Your task to perform on an android device: Check the settings for the Netflix app Image 0: 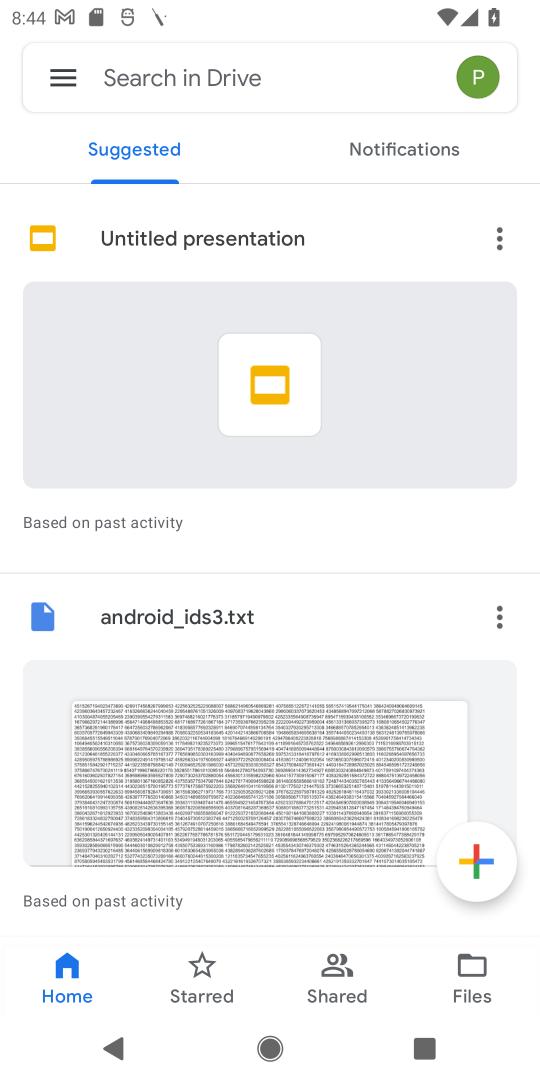
Step 0: press home button
Your task to perform on an android device: Check the settings for the Netflix app Image 1: 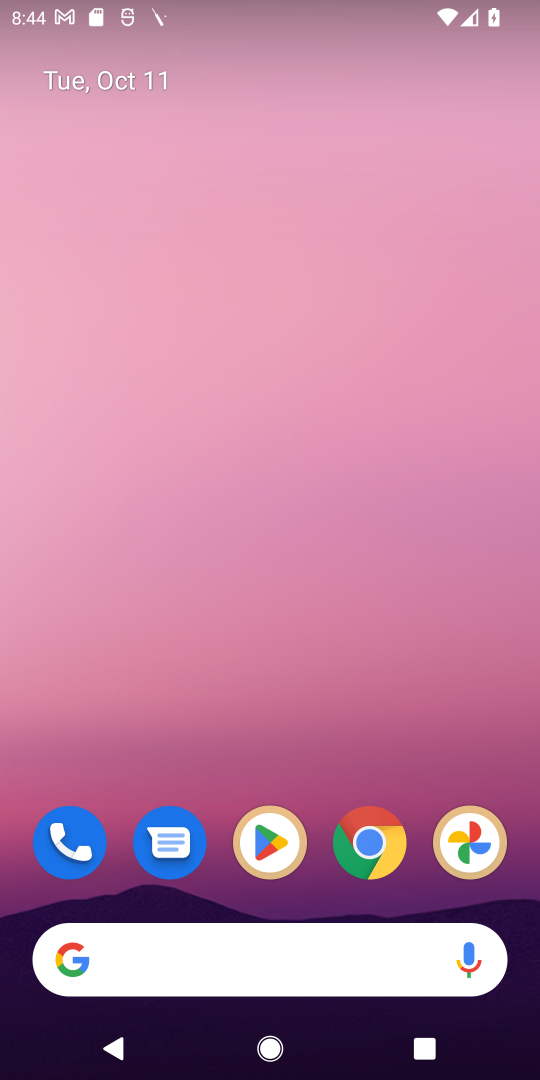
Step 1: click (279, 841)
Your task to perform on an android device: Check the settings for the Netflix app Image 2: 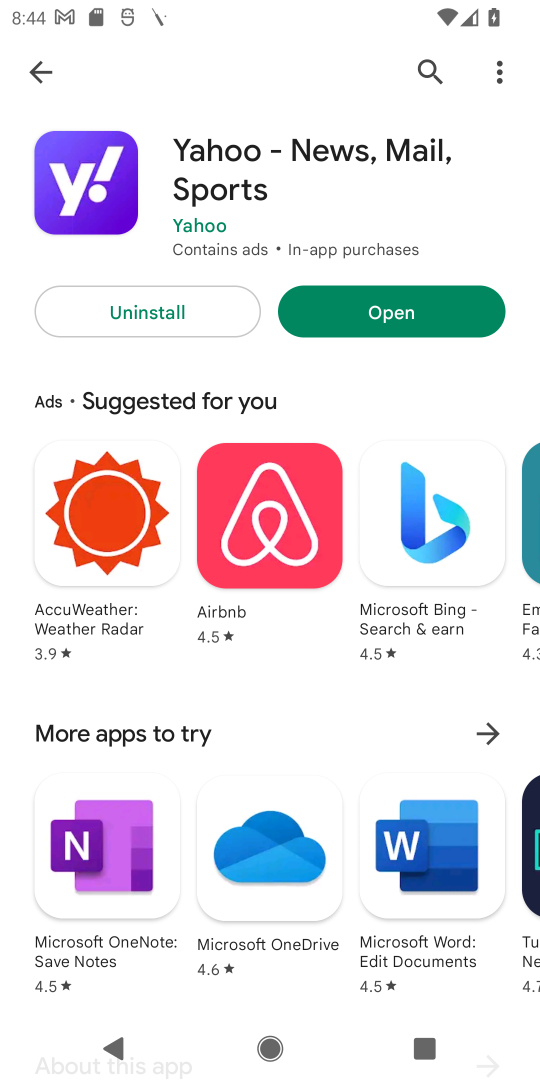
Step 2: click (415, 65)
Your task to perform on an android device: Check the settings for the Netflix app Image 3: 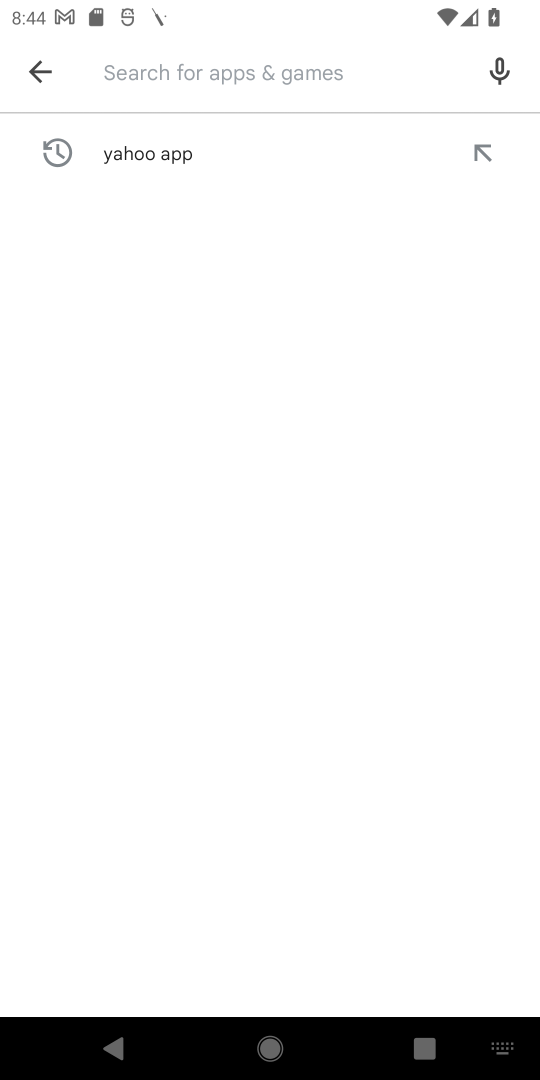
Step 3: type "netflix app"
Your task to perform on an android device: Check the settings for the Netflix app Image 4: 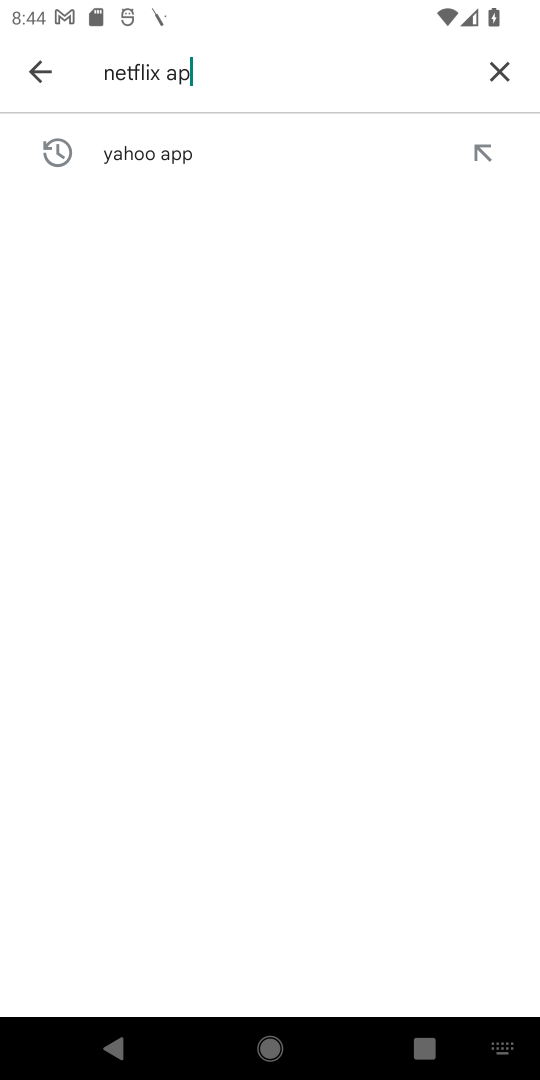
Step 4: type ""
Your task to perform on an android device: Check the settings for the Netflix app Image 5: 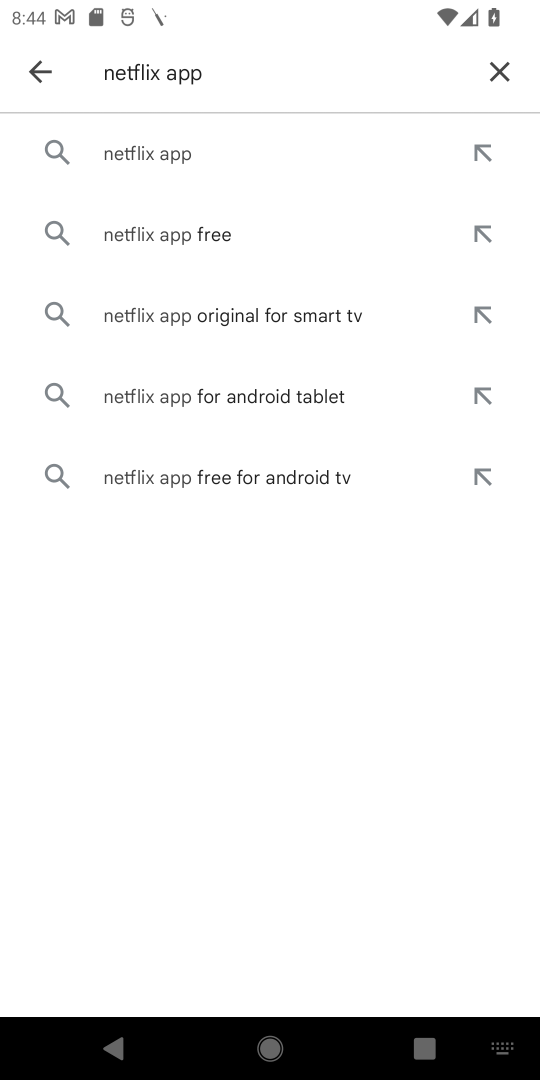
Step 5: click (168, 151)
Your task to perform on an android device: Check the settings for the Netflix app Image 6: 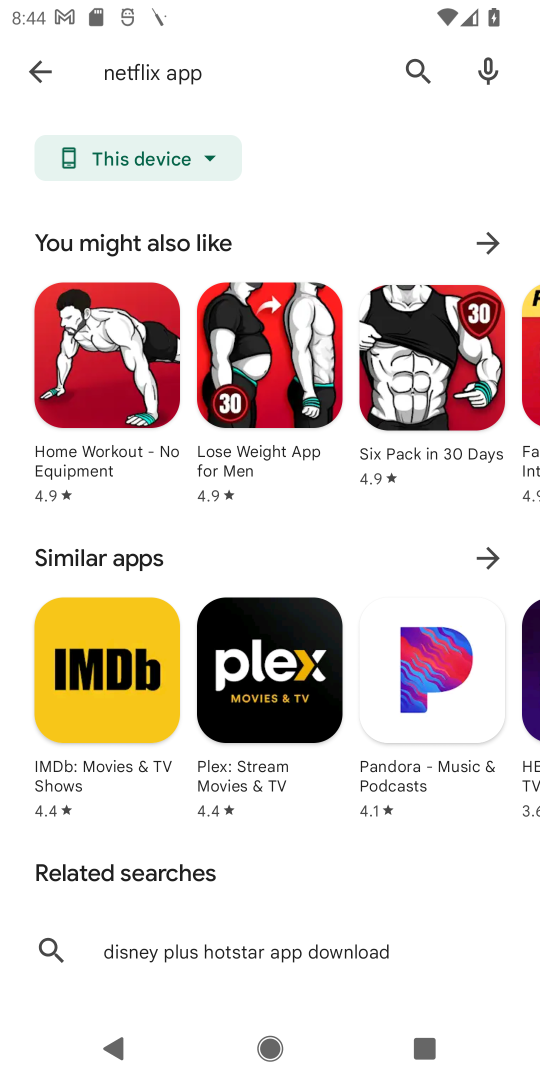
Step 6: click (412, 75)
Your task to perform on an android device: Check the settings for the Netflix app Image 7: 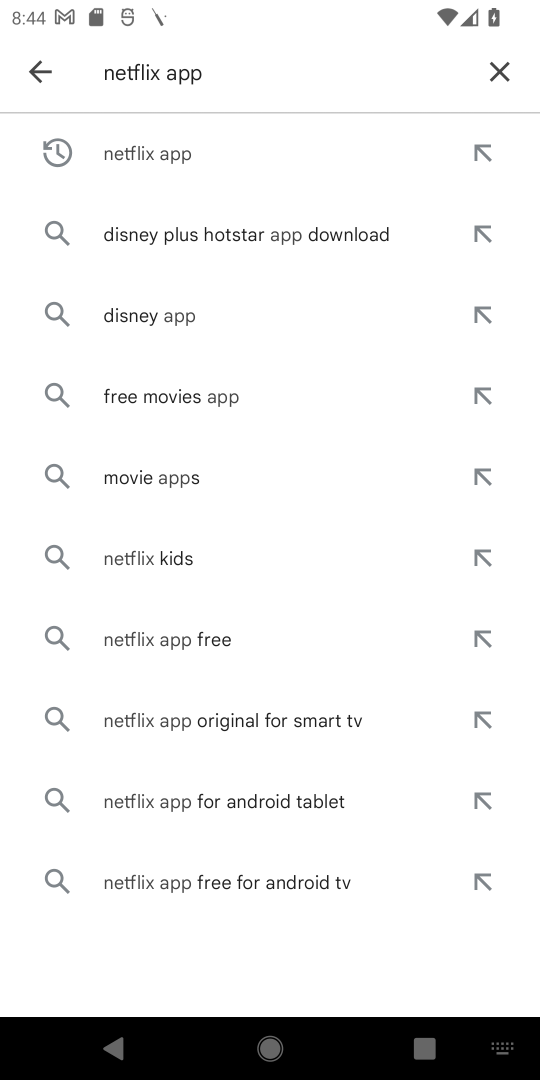
Step 7: click (158, 711)
Your task to perform on an android device: Check the settings for the Netflix app Image 8: 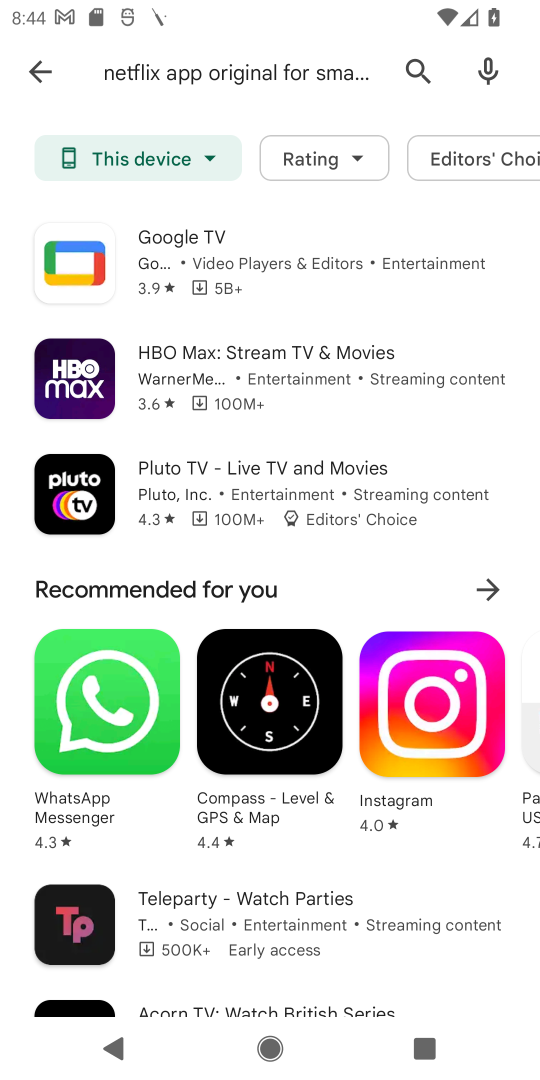
Step 8: drag from (356, 843) to (448, 502)
Your task to perform on an android device: Check the settings for the Netflix app Image 9: 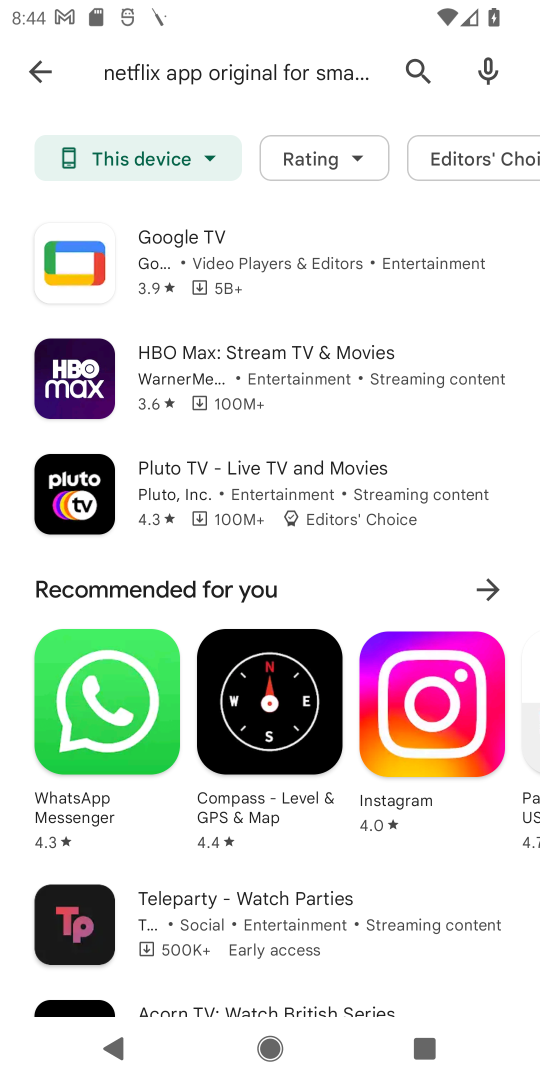
Step 9: drag from (333, 902) to (428, 517)
Your task to perform on an android device: Check the settings for the Netflix app Image 10: 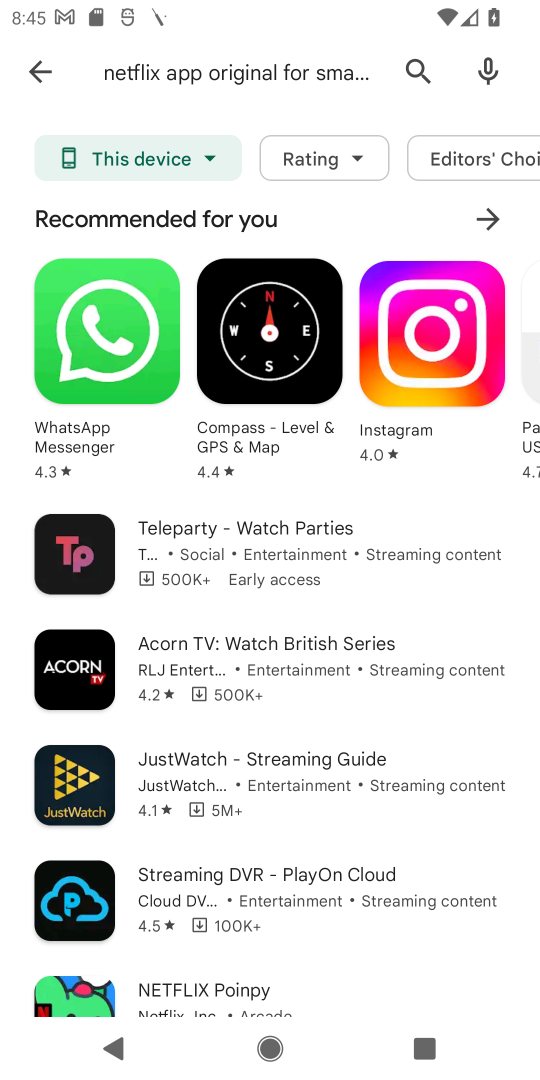
Step 10: drag from (245, 866) to (325, 564)
Your task to perform on an android device: Check the settings for the Netflix app Image 11: 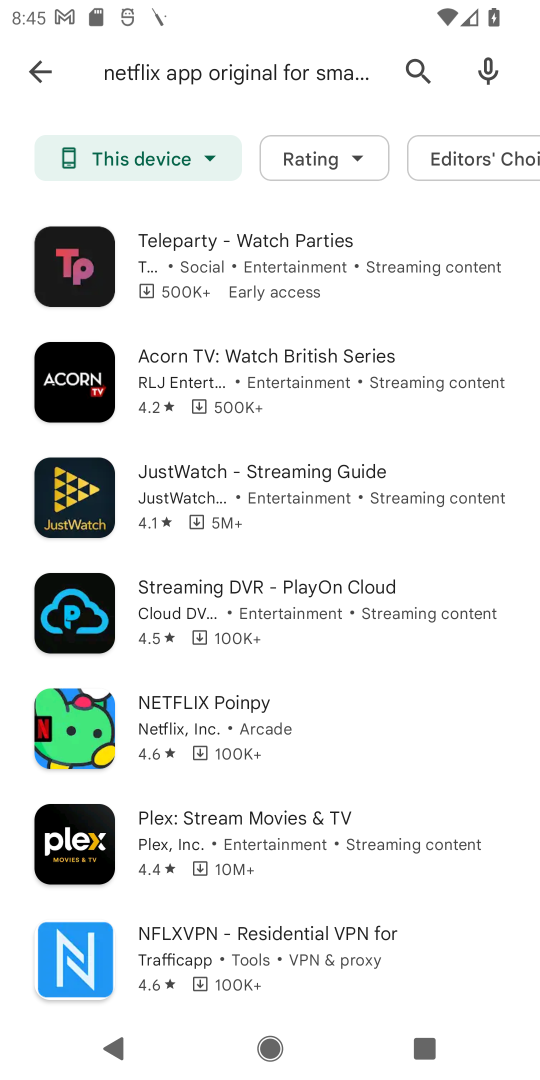
Step 11: click (151, 950)
Your task to perform on an android device: Check the settings for the Netflix app Image 12: 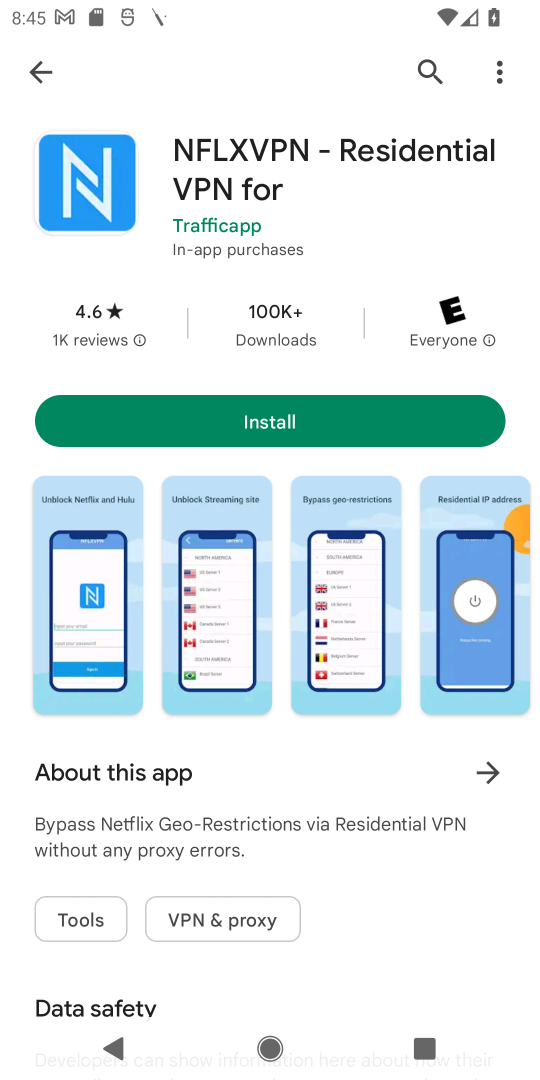
Step 12: click (281, 432)
Your task to perform on an android device: Check the settings for the Netflix app Image 13: 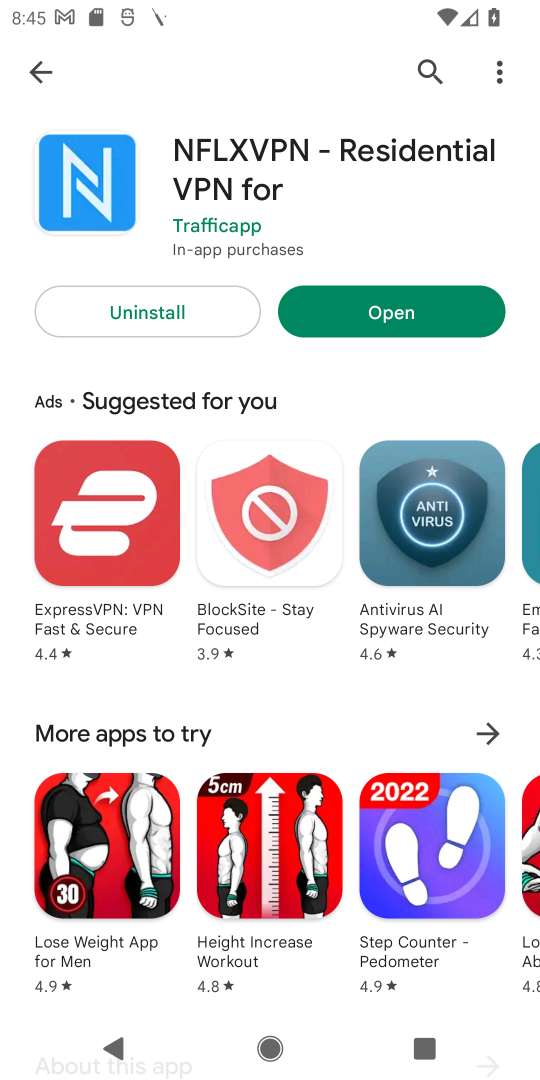
Step 13: click (363, 315)
Your task to perform on an android device: Check the settings for the Netflix app Image 14: 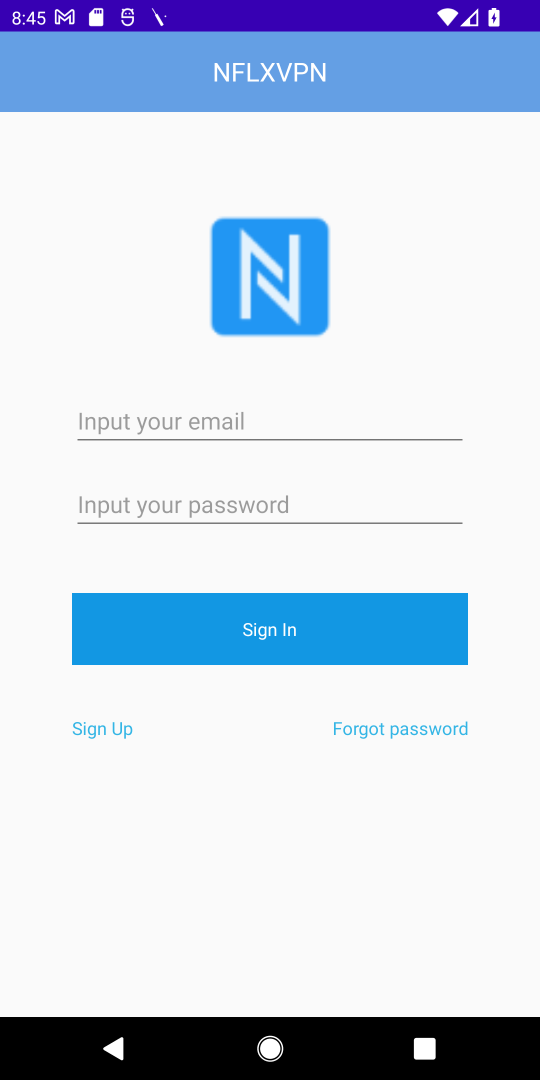
Step 14: task complete